Your task to perform on an android device: Go to network settings Image 0: 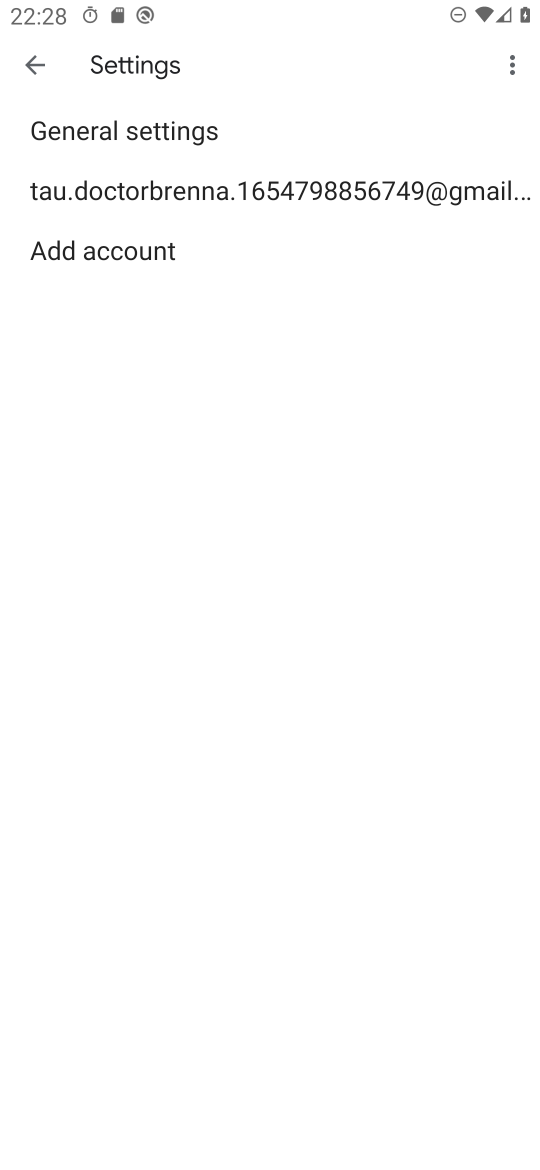
Step 0: press home button
Your task to perform on an android device: Go to network settings Image 1: 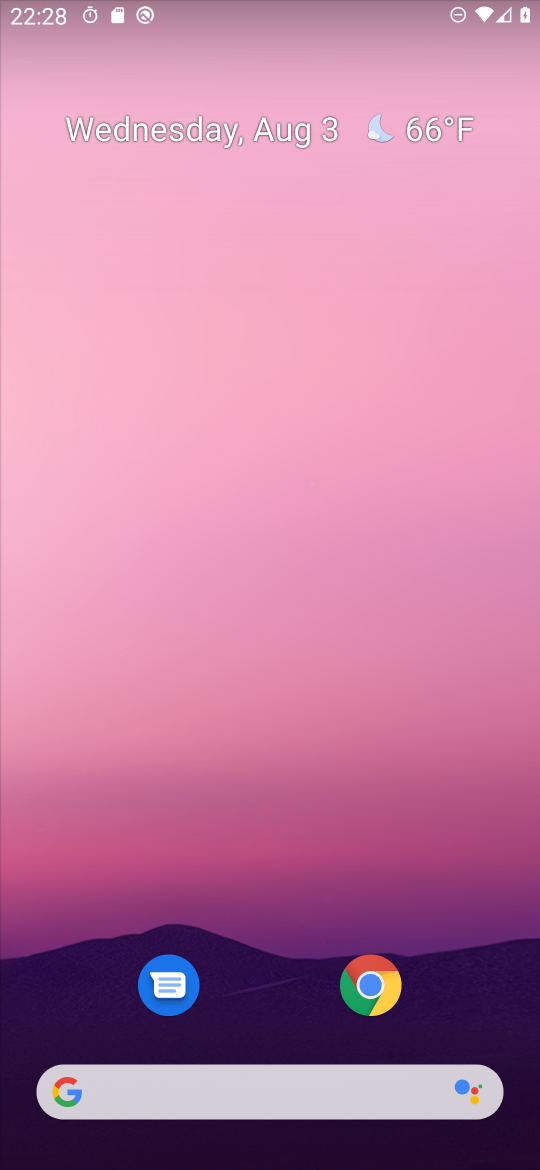
Step 1: drag from (240, 916) to (235, 251)
Your task to perform on an android device: Go to network settings Image 2: 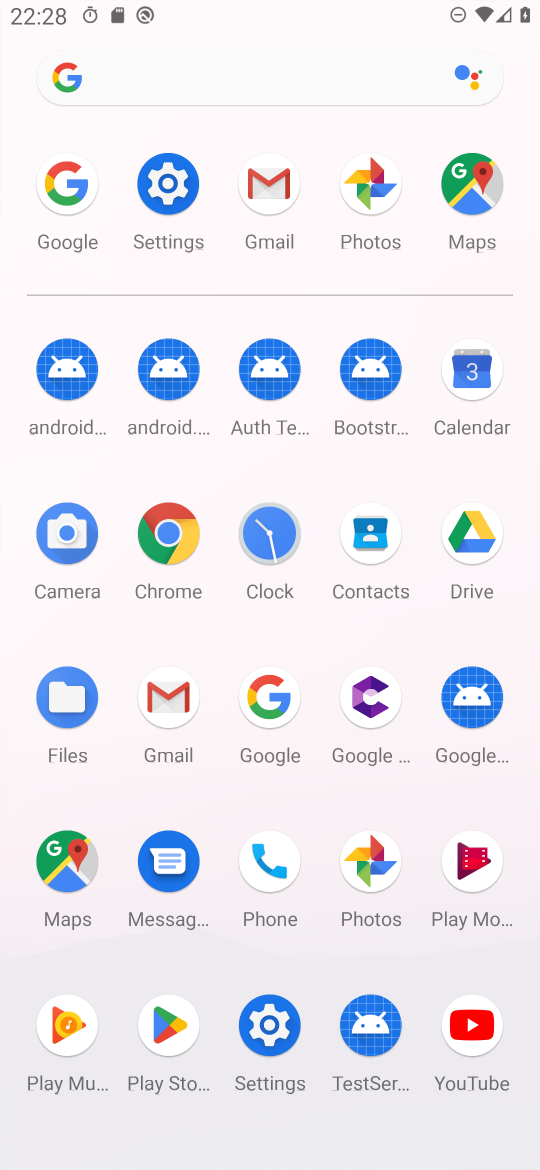
Step 2: click (170, 195)
Your task to perform on an android device: Go to network settings Image 3: 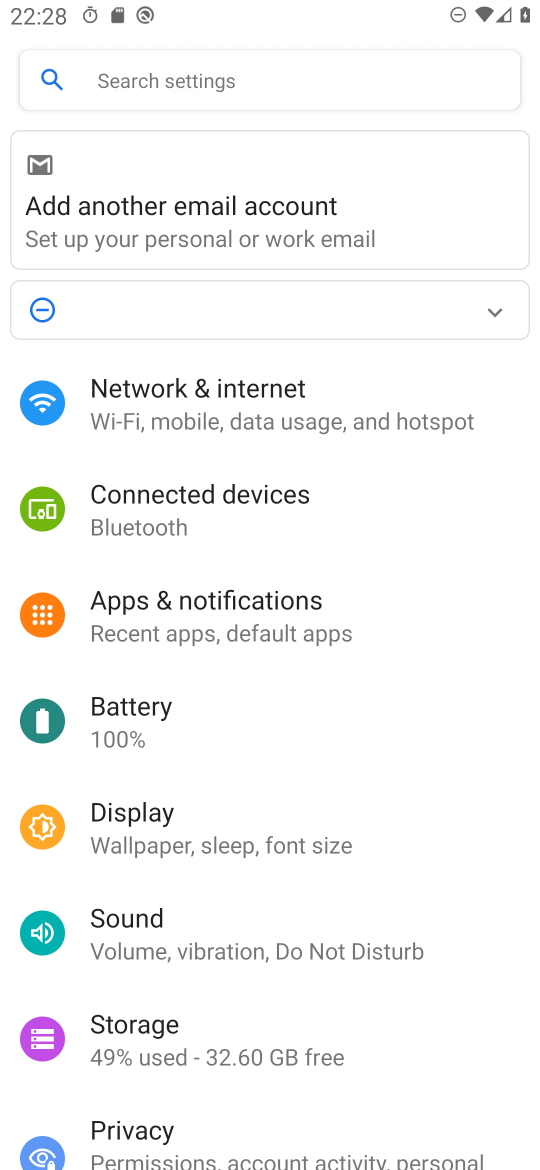
Step 3: click (222, 414)
Your task to perform on an android device: Go to network settings Image 4: 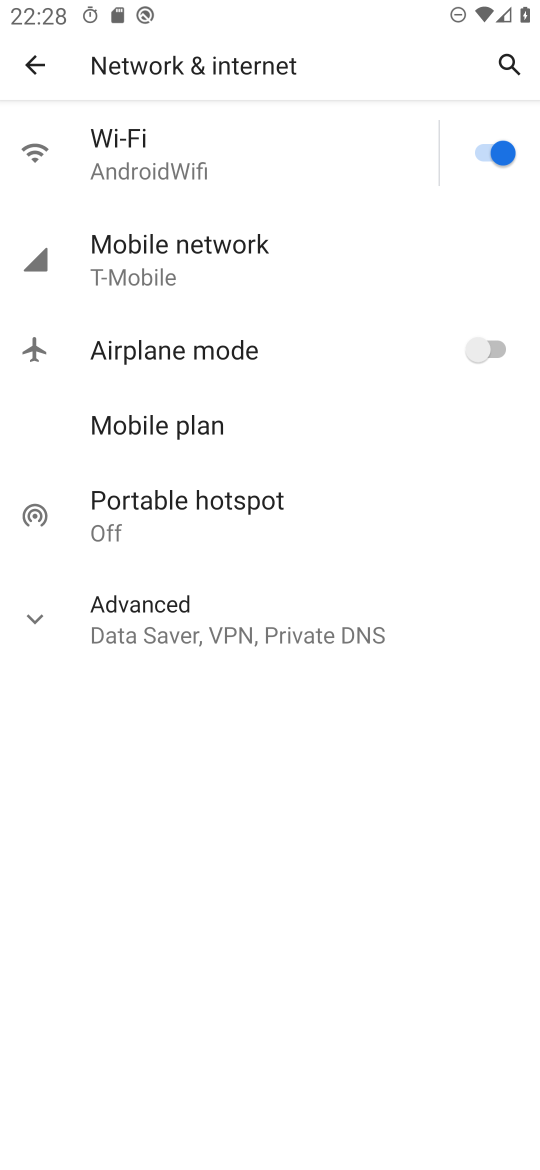
Step 4: task complete